Your task to perform on an android device: turn notification dots on Image 0: 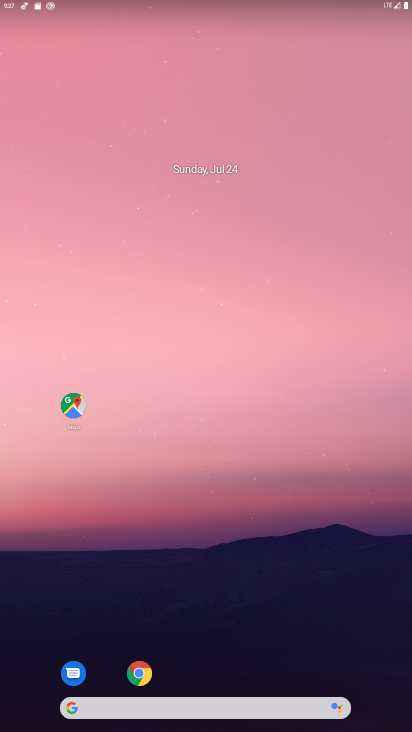
Step 0: drag from (218, 660) to (239, 249)
Your task to perform on an android device: turn notification dots on Image 1: 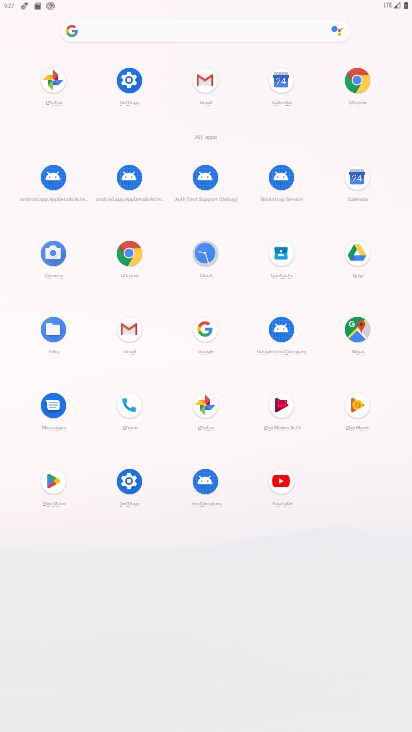
Step 1: click (136, 491)
Your task to perform on an android device: turn notification dots on Image 2: 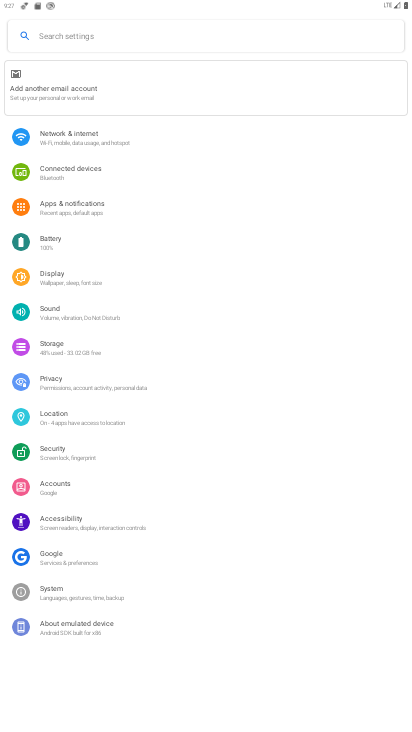
Step 2: click (92, 207)
Your task to perform on an android device: turn notification dots on Image 3: 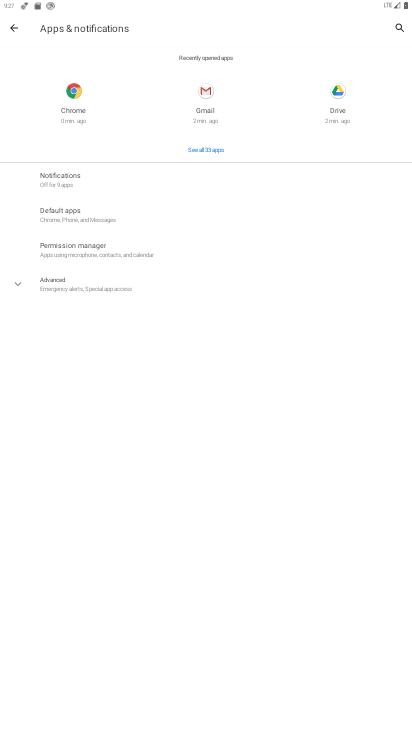
Step 3: click (80, 175)
Your task to perform on an android device: turn notification dots on Image 4: 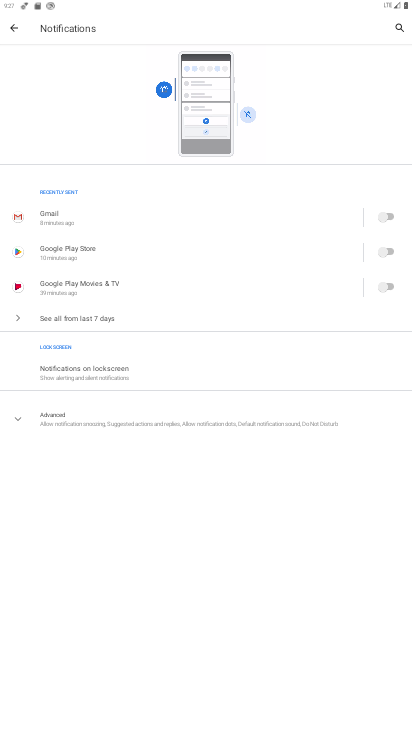
Step 4: click (97, 374)
Your task to perform on an android device: turn notification dots on Image 5: 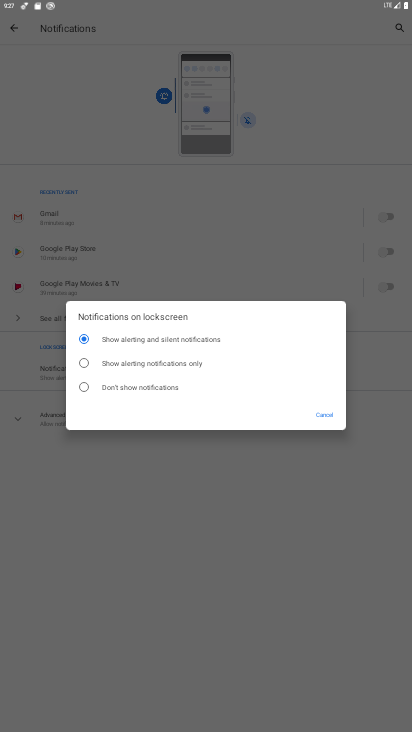
Step 5: click (33, 417)
Your task to perform on an android device: turn notification dots on Image 6: 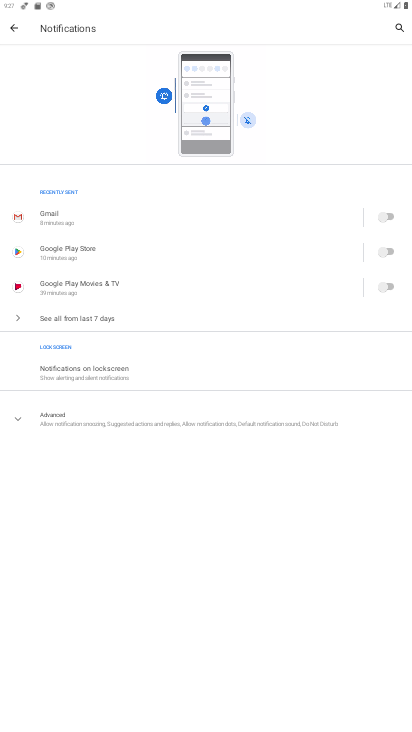
Step 6: click (33, 417)
Your task to perform on an android device: turn notification dots on Image 7: 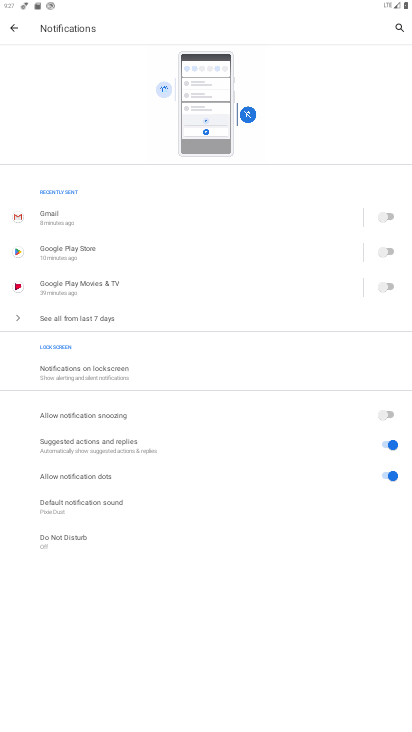
Step 7: task complete